Your task to perform on an android device: toggle sleep mode Image 0: 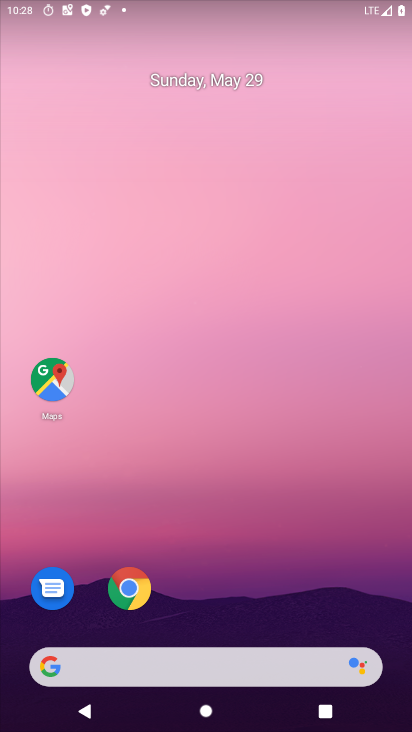
Step 0: drag from (223, 631) to (259, 119)
Your task to perform on an android device: toggle sleep mode Image 1: 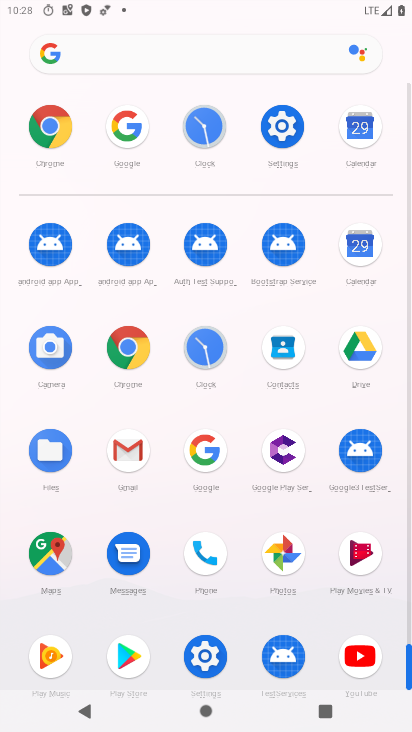
Step 1: drag from (177, 200) to (156, 81)
Your task to perform on an android device: toggle sleep mode Image 2: 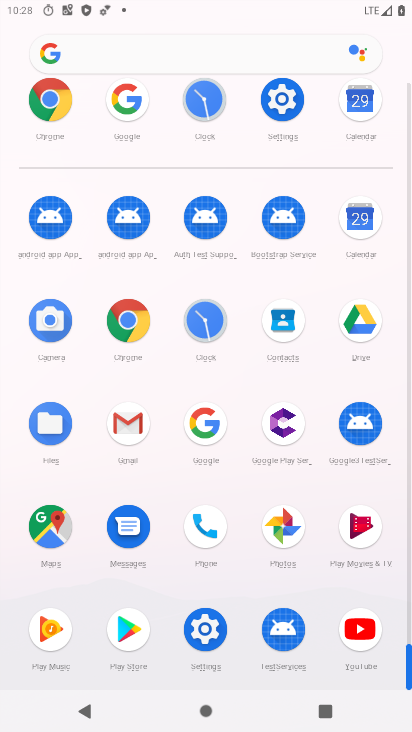
Step 2: click (212, 634)
Your task to perform on an android device: toggle sleep mode Image 3: 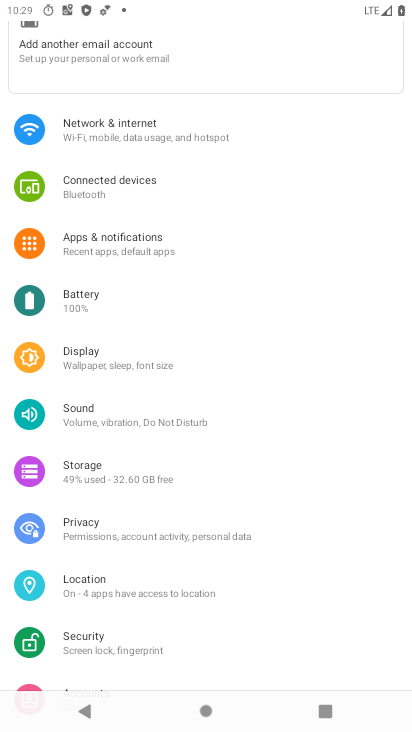
Step 3: task complete